Your task to perform on an android device: Go to wifi settings Image 0: 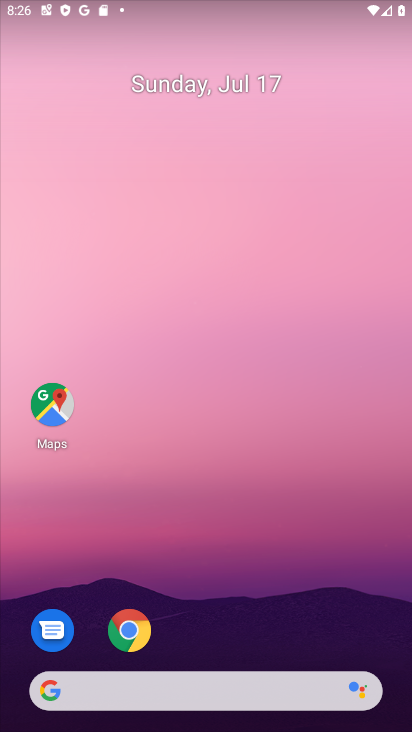
Step 0: drag from (197, 518) to (195, 18)
Your task to perform on an android device: Go to wifi settings Image 1: 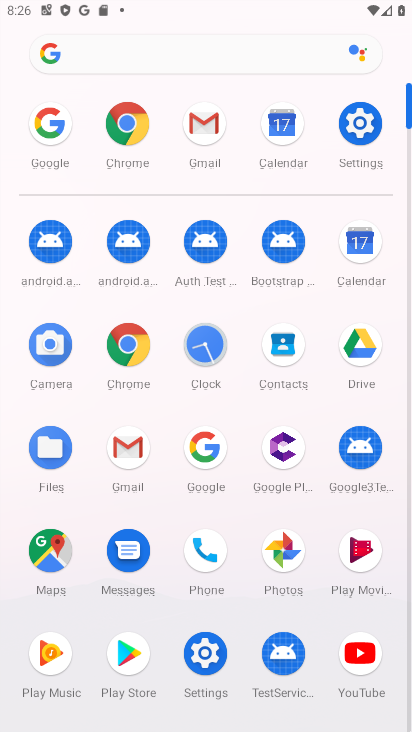
Step 1: click (362, 131)
Your task to perform on an android device: Go to wifi settings Image 2: 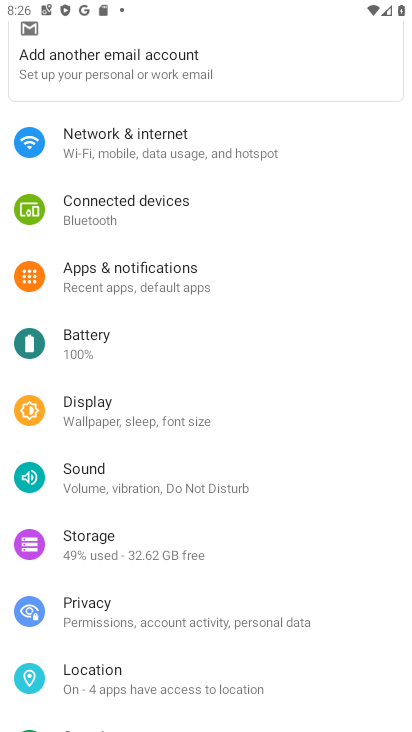
Step 2: click (217, 158)
Your task to perform on an android device: Go to wifi settings Image 3: 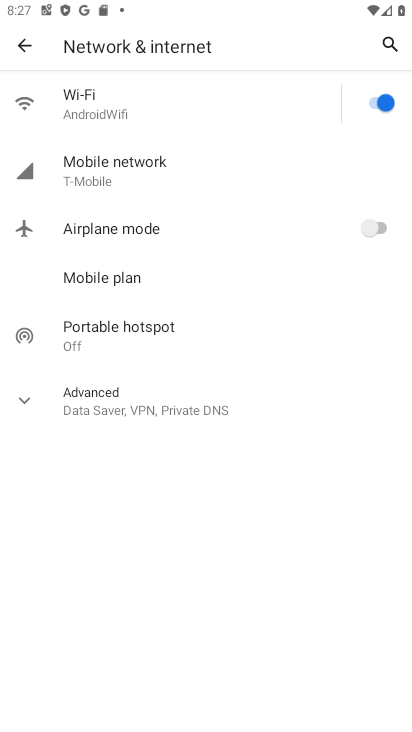
Step 3: click (161, 93)
Your task to perform on an android device: Go to wifi settings Image 4: 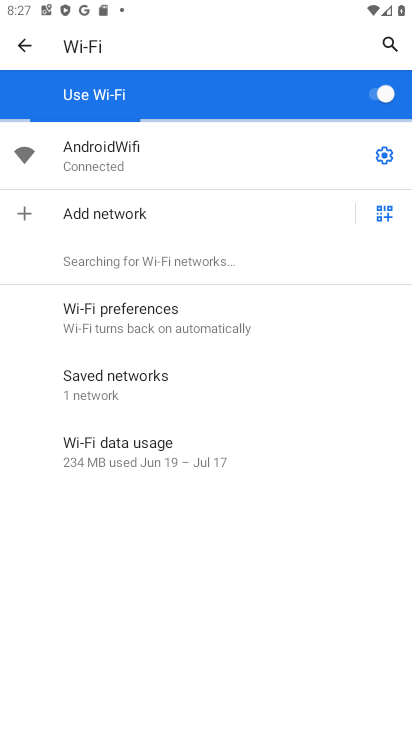
Step 4: task complete